Your task to perform on an android device: Search for "macbook pro" on amazon.com, select the first entry, and add it to the cart. Image 0: 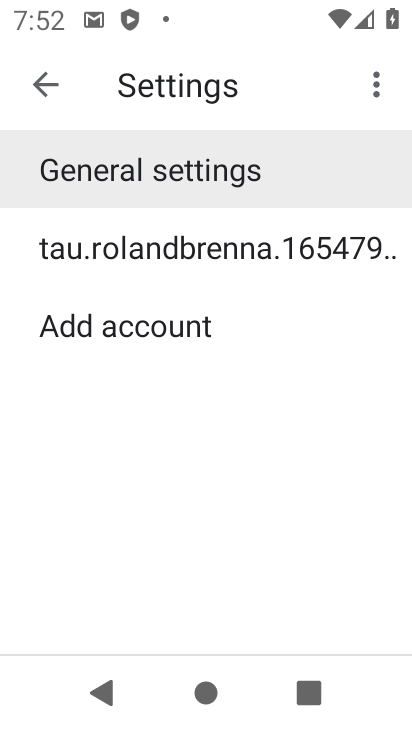
Step 0: press home button
Your task to perform on an android device: Search for "macbook pro" on amazon.com, select the first entry, and add it to the cart. Image 1: 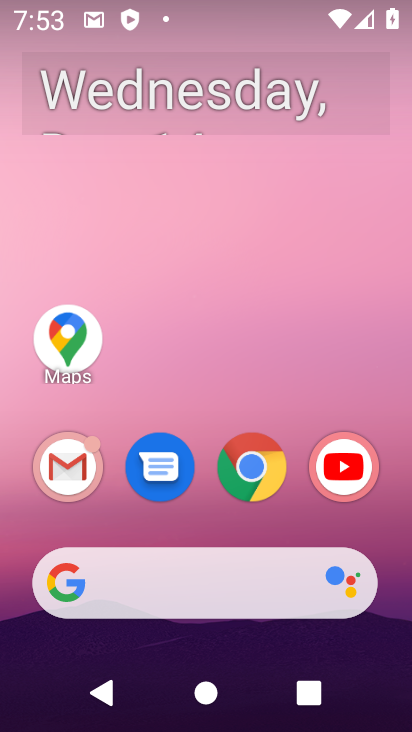
Step 1: click (253, 497)
Your task to perform on an android device: Search for "macbook pro" on amazon.com, select the first entry, and add it to the cart. Image 2: 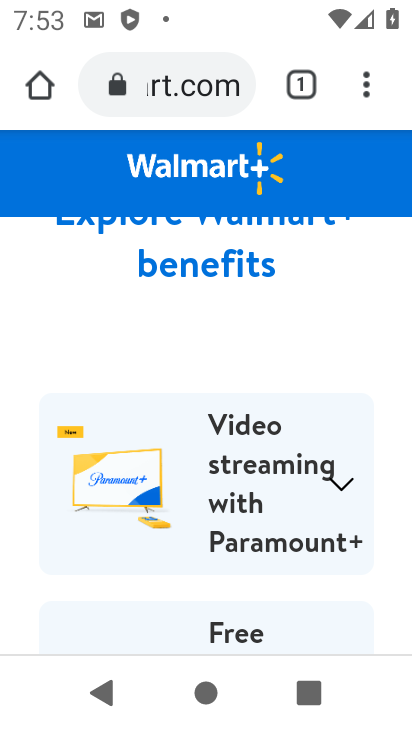
Step 2: click (194, 103)
Your task to perform on an android device: Search for "macbook pro" on amazon.com, select the first entry, and add it to the cart. Image 3: 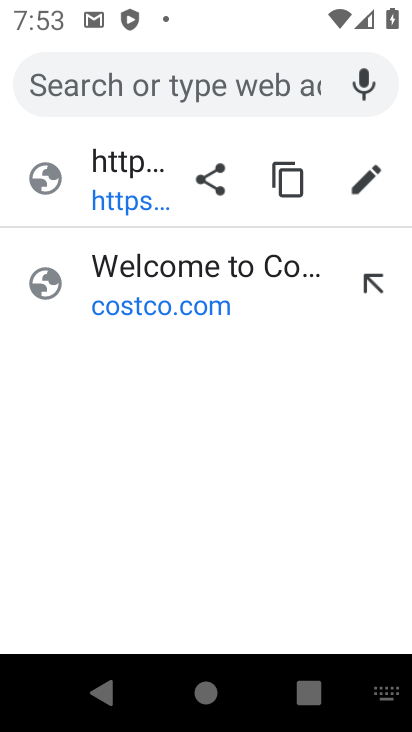
Step 3: type "amazon"
Your task to perform on an android device: Search for "macbook pro" on amazon.com, select the first entry, and add it to the cart. Image 4: 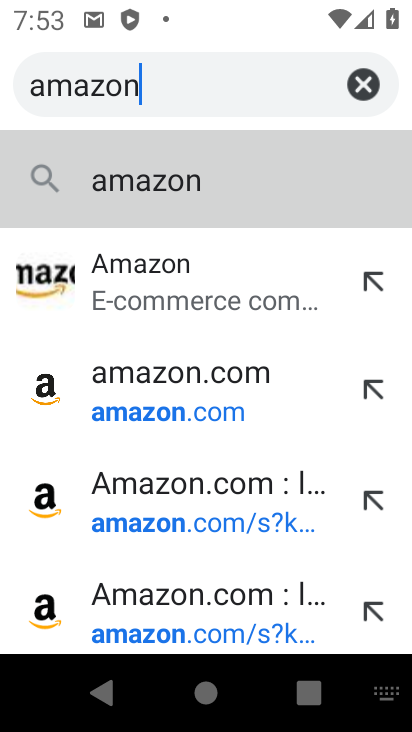
Step 4: click (198, 315)
Your task to perform on an android device: Search for "macbook pro" on amazon.com, select the first entry, and add it to the cart. Image 5: 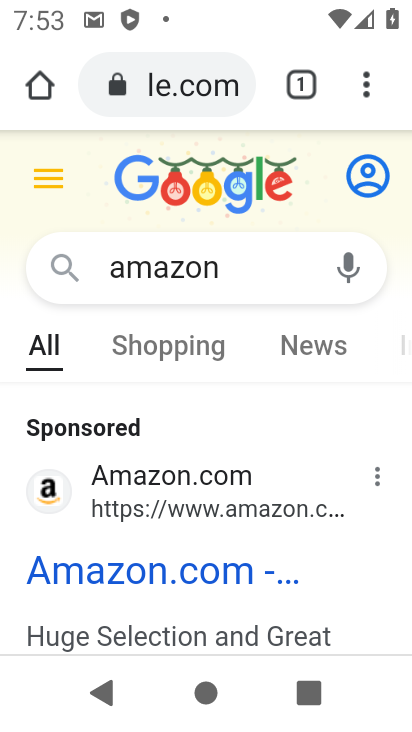
Step 5: click (162, 589)
Your task to perform on an android device: Search for "macbook pro" on amazon.com, select the first entry, and add it to the cart. Image 6: 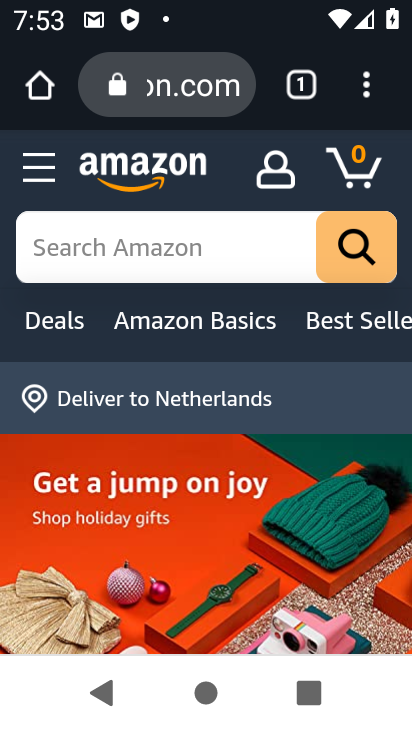
Step 6: click (197, 257)
Your task to perform on an android device: Search for "macbook pro" on amazon.com, select the first entry, and add it to the cart. Image 7: 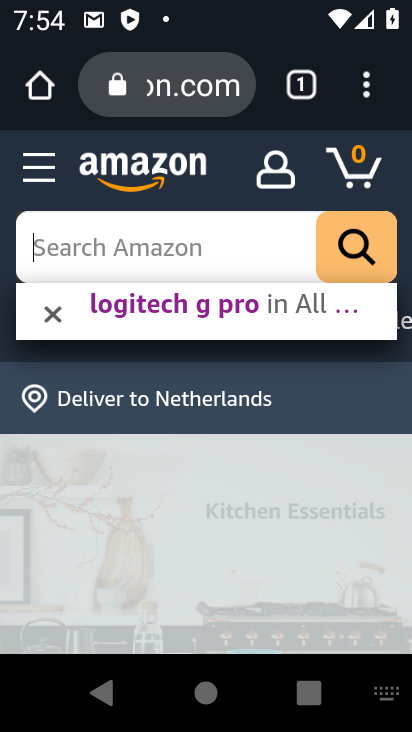
Step 7: type "macbook pro"
Your task to perform on an android device: Search for "macbook pro" on amazon.com, select the first entry, and add it to the cart. Image 8: 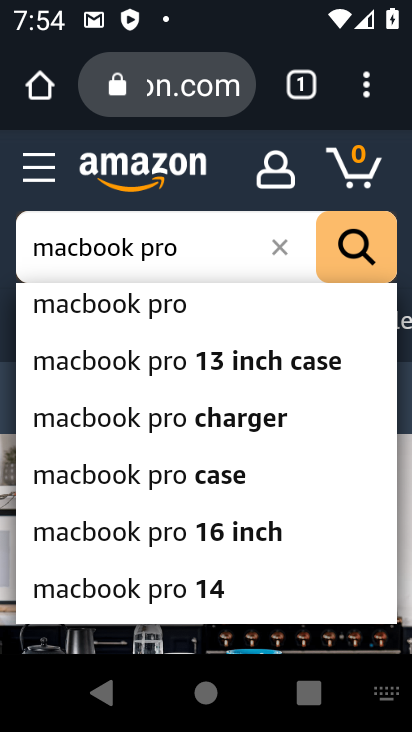
Step 8: click (207, 311)
Your task to perform on an android device: Search for "macbook pro" on amazon.com, select the first entry, and add it to the cart. Image 9: 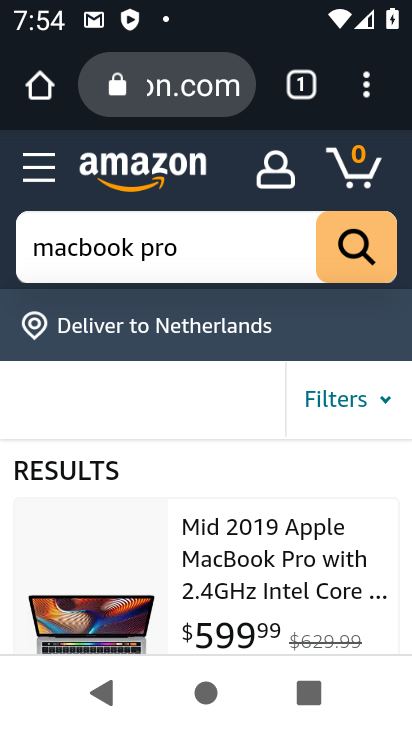
Step 9: click (218, 549)
Your task to perform on an android device: Search for "macbook pro" on amazon.com, select the first entry, and add it to the cart. Image 10: 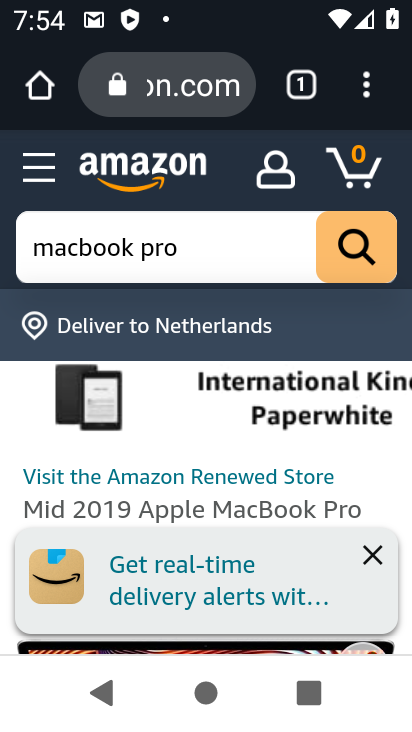
Step 10: click (373, 559)
Your task to perform on an android device: Search for "macbook pro" on amazon.com, select the first entry, and add it to the cart. Image 11: 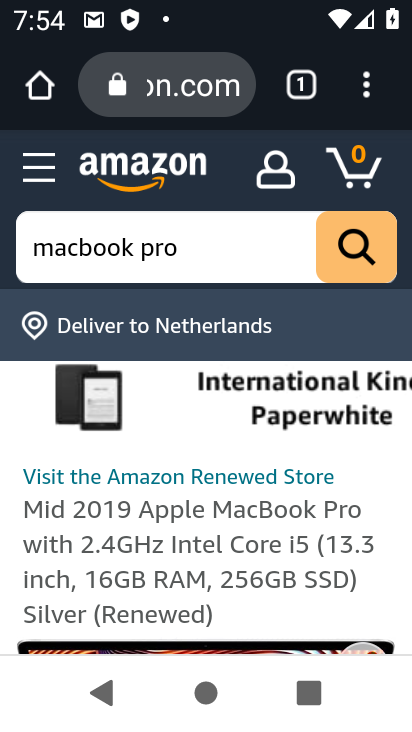
Step 11: drag from (306, 571) to (314, 365)
Your task to perform on an android device: Search for "macbook pro" on amazon.com, select the first entry, and add it to the cart. Image 12: 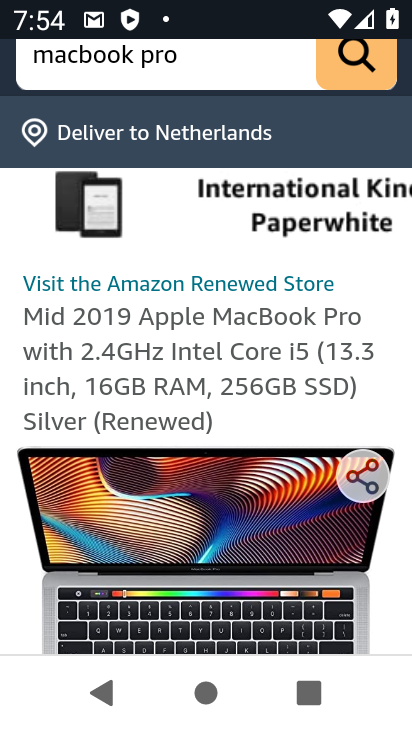
Step 12: drag from (259, 571) to (267, 159)
Your task to perform on an android device: Search for "macbook pro" on amazon.com, select the first entry, and add it to the cart. Image 13: 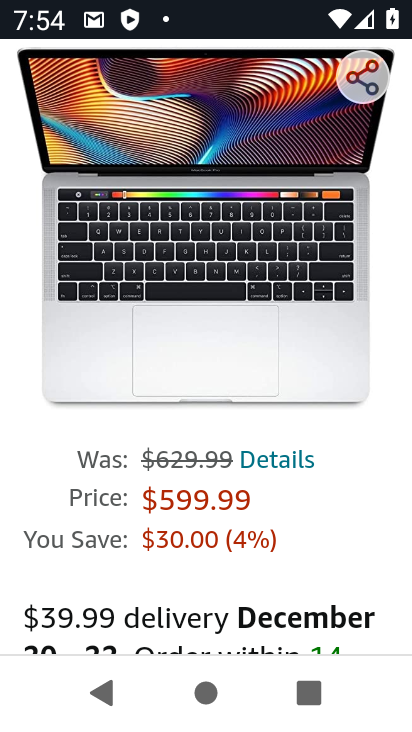
Step 13: drag from (339, 576) to (338, 215)
Your task to perform on an android device: Search for "macbook pro" on amazon.com, select the first entry, and add it to the cart. Image 14: 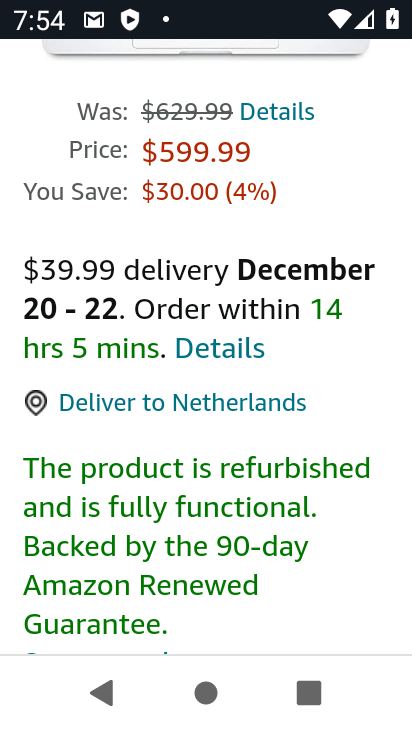
Step 14: drag from (346, 532) to (300, 214)
Your task to perform on an android device: Search for "macbook pro" on amazon.com, select the first entry, and add it to the cart. Image 15: 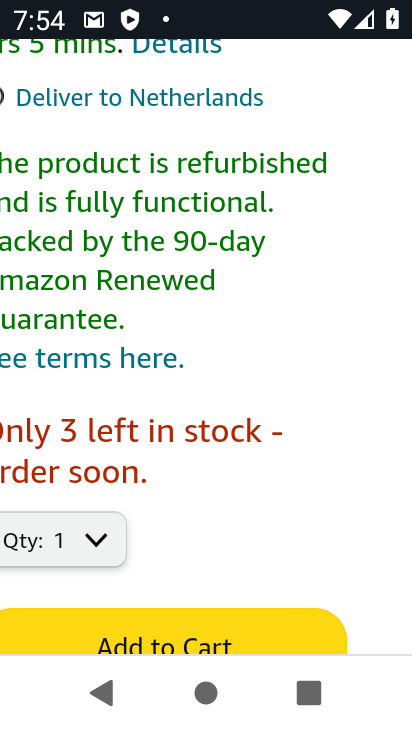
Step 15: click (203, 623)
Your task to perform on an android device: Search for "macbook pro" on amazon.com, select the first entry, and add it to the cart. Image 16: 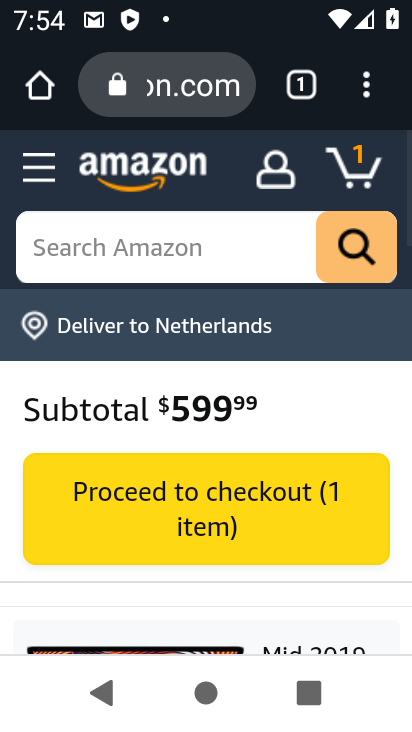
Step 16: task complete